Your task to perform on an android device: Go to Android settings Image 0: 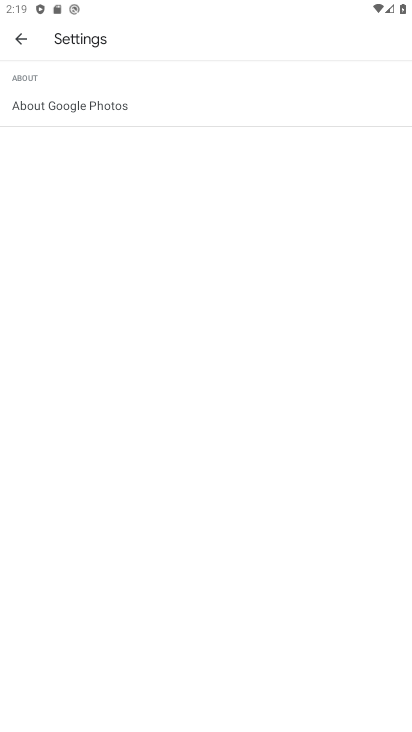
Step 0: press home button
Your task to perform on an android device: Go to Android settings Image 1: 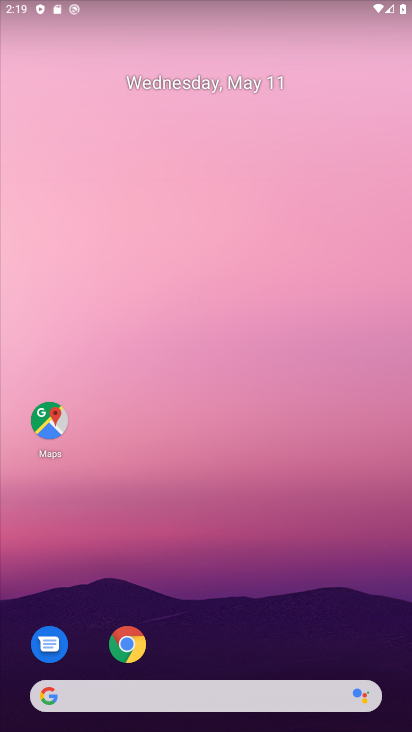
Step 1: drag from (202, 679) to (226, 184)
Your task to perform on an android device: Go to Android settings Image 2: 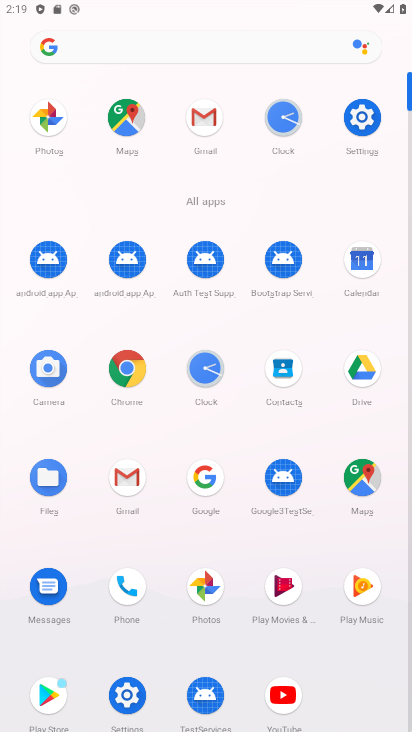
Step 2: click (373, 111)
Your task to perform on an android device: Go to Android settings Image 3: 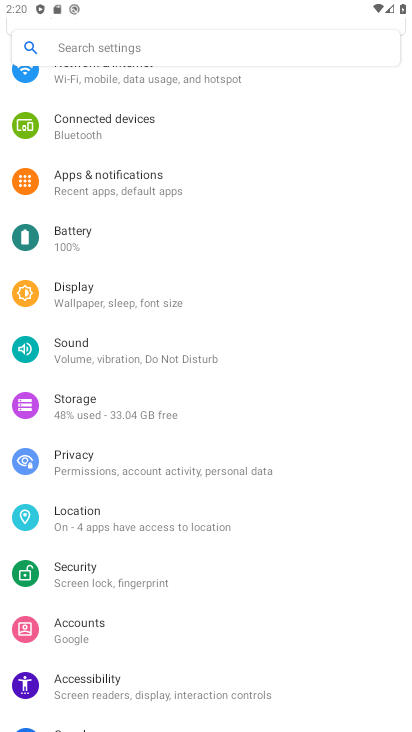
Step 3: task complete